Your task to perform on an android device: What is the news today? Image 0: 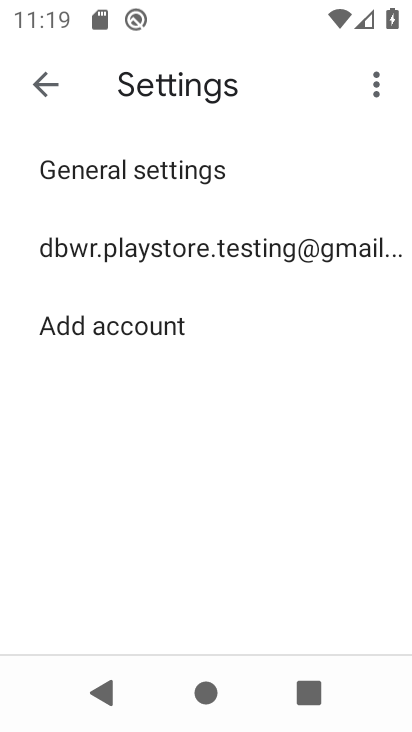
Step 0: press home button
Your task to perform on an android device: What is the news today? Image 1: 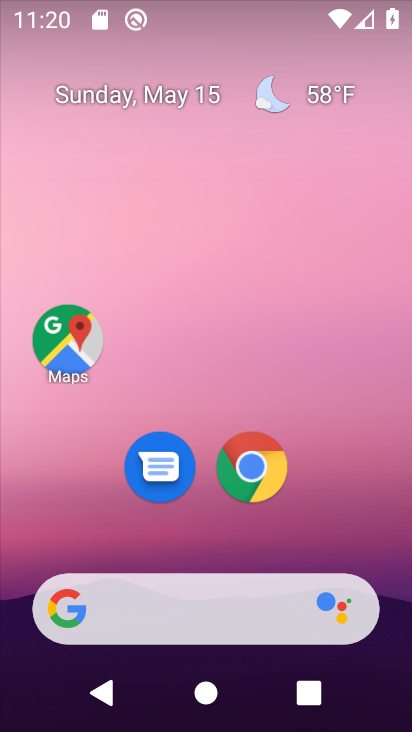
Step 1: task complete